Your task to perform on an android device: change timer sound Image 0: 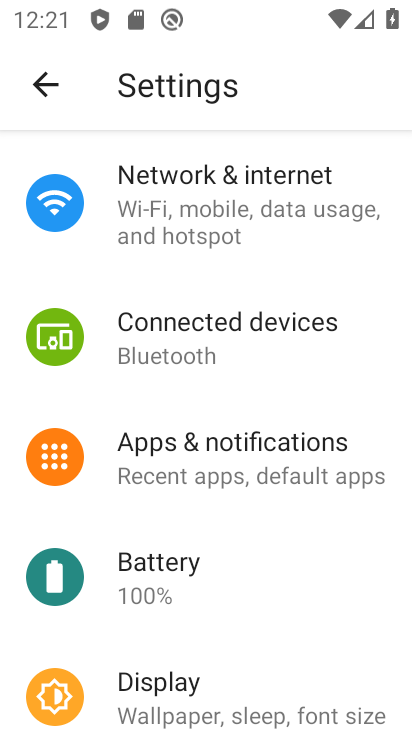
Step 0: press home button
Your task to perform on an android device: change timer sound Image 1: 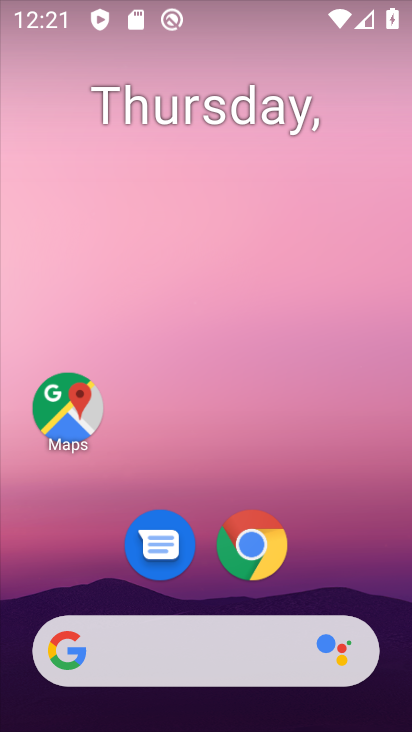
Step 1: drag from (297, 470) to (323, 173)
Your task to perform on an android device: change timer sound Image 2: 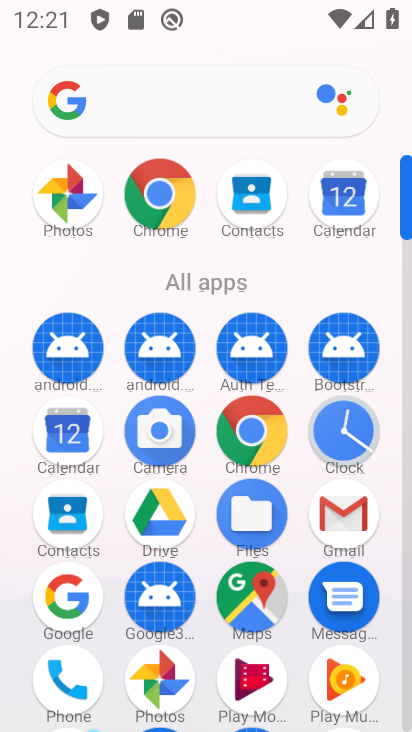
Step 2: click (341, 449)
Your task to perform on an android device: change timer sound Image 3: 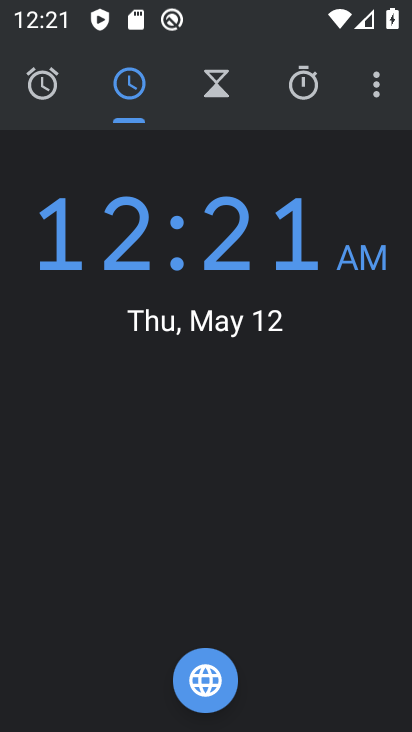
Step 3: click (379, 97)
Your task to perform on an android device: change timer sound Image 4: 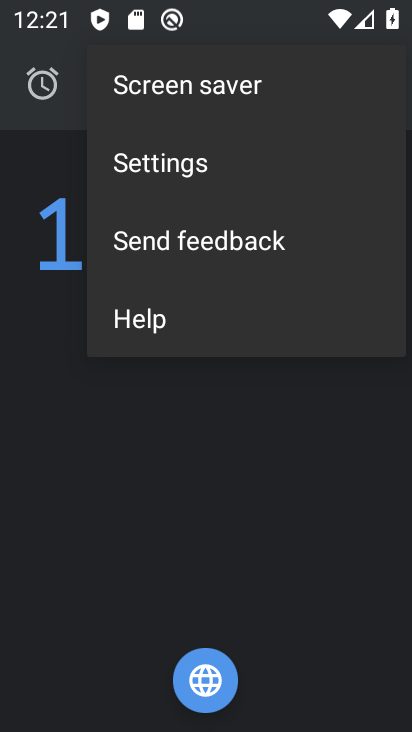
Step 4: click (219, 165)
Your task to perform on an android device: change timer sound Image 5: 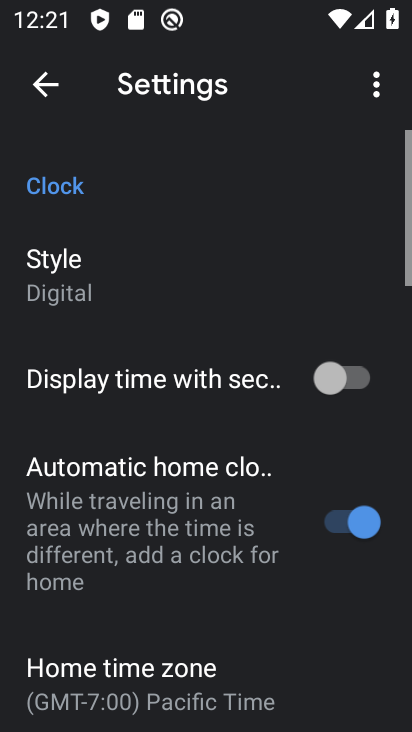
Step 5: drag from (198, 539) to (270, 111)
Your task to perform on an android device: change timer sound Image 6: 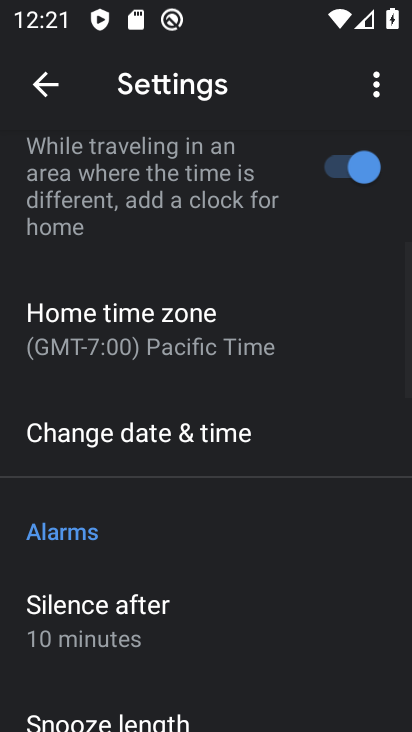
Step 6: drag from (260, 583) to (288, 215)
Your task to perform on an android device: change timer sound Image 7: 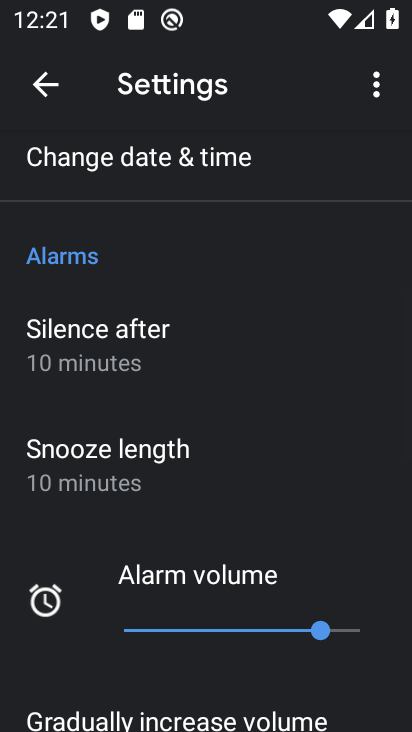
Step 7: drag from (218, 562) to (298, 236)
Your task to perform on an android device: change timer sound Image 8: 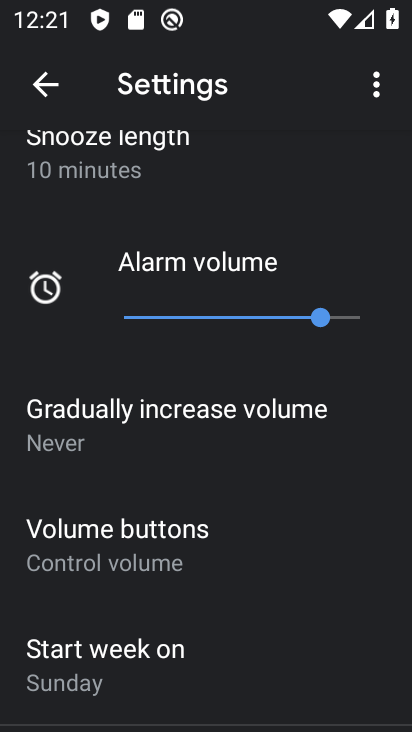
Step 8: drag from (226, 571) to (334, 193)
Your task to perform on an android device: change timer sound Image 9: 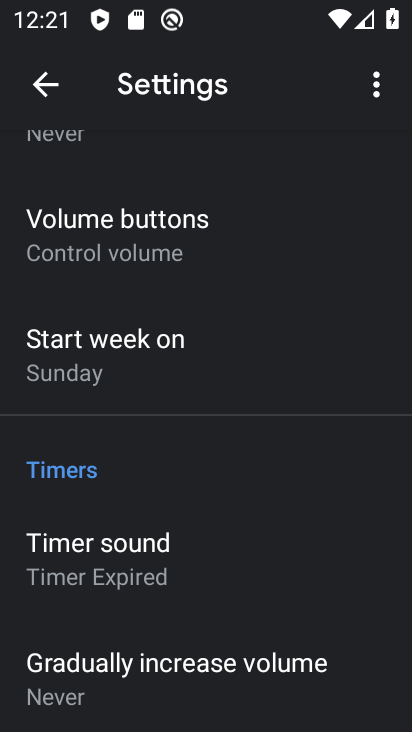
Step 9: click (164, 572)
Your task to perform on an android device: change timer sound Image 10: 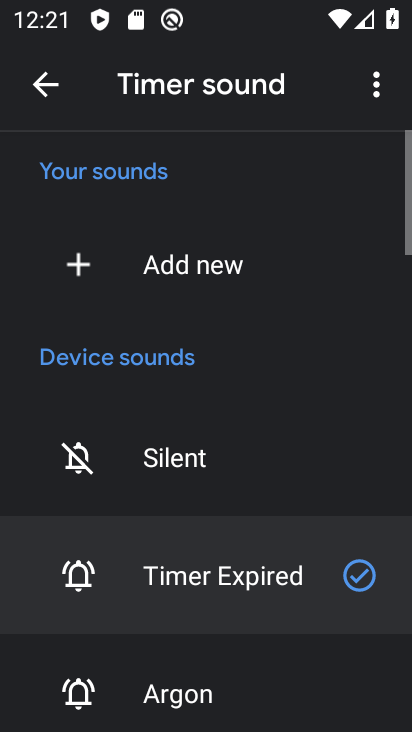
Step 10: click (187, 702)
Your task to perform on an android device: change timer sound Image 11: 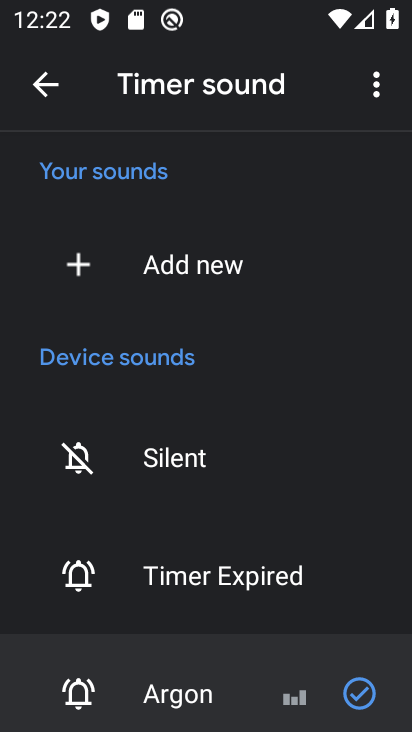
Step 11: task complete